Your task to perform on an android device: turn on improve location accuracy Image 0: 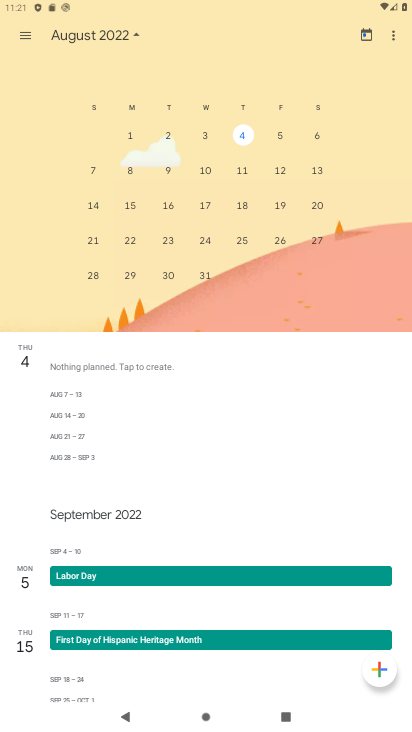
Step 0: drag from (161, 554) to (259, 102)
Your task to perform on an android device: turn on improve location accuracy Image 1: 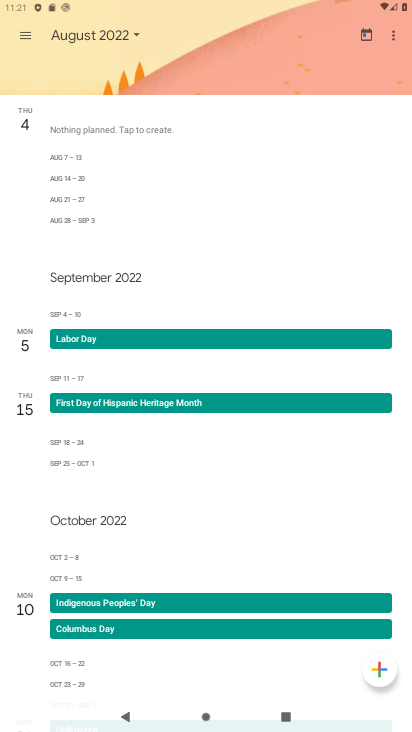
Step 1: press home button
Your task to perform on an android device: turn on improve location accuracy Image 2: 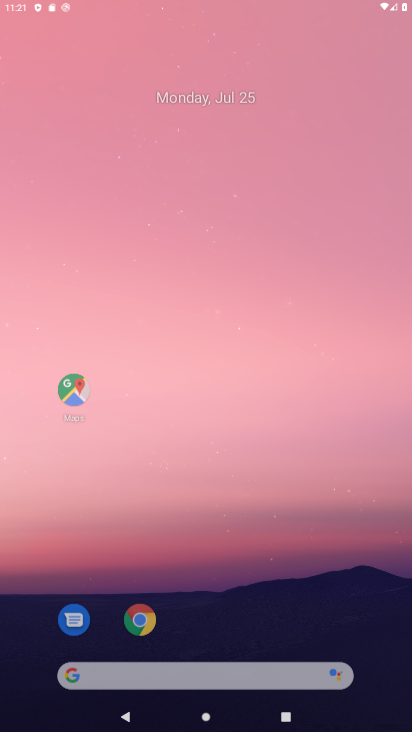
Step 2: drag from (225, 555) to (406, 56)
Your task to perform on an android device: turn on improve location accuracy Image 3: 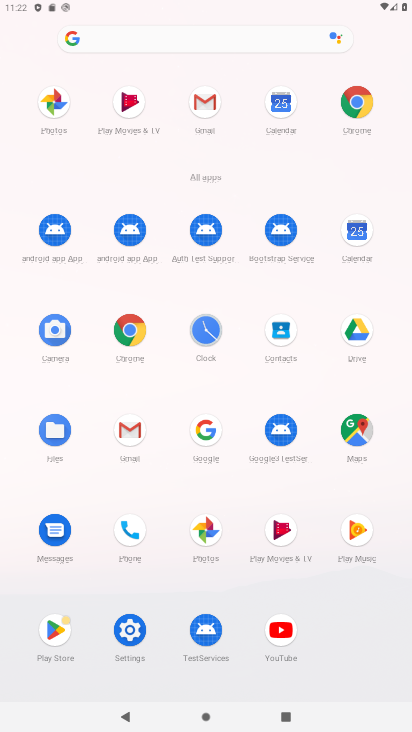
Step 3: click (125, 626)
Your task to perform on an android device: turn on improve location accuracy Image 4: 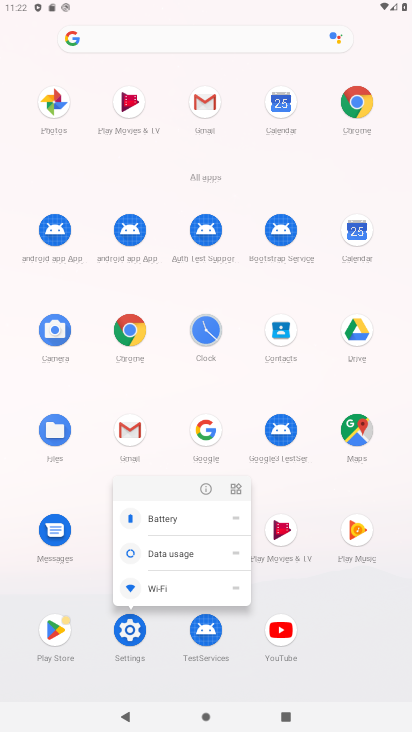
Step 4: click (208, 486)
Your task to perform on an android device: turn on improve location accuracy Image 5: 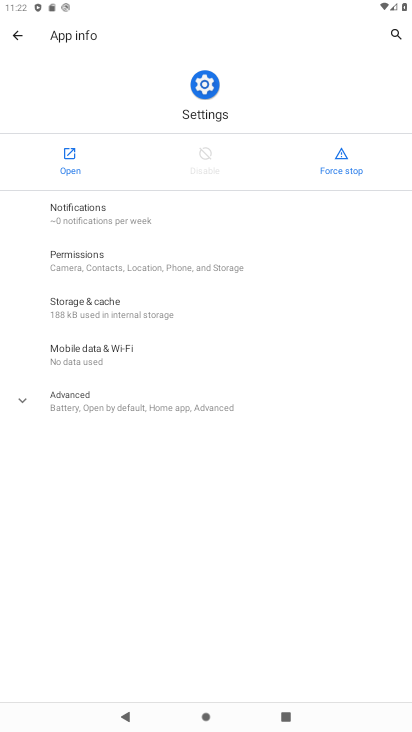
Step 5: click (67, 157)
Your task to perform on an android device: turn on improve location accuracy Image 6: 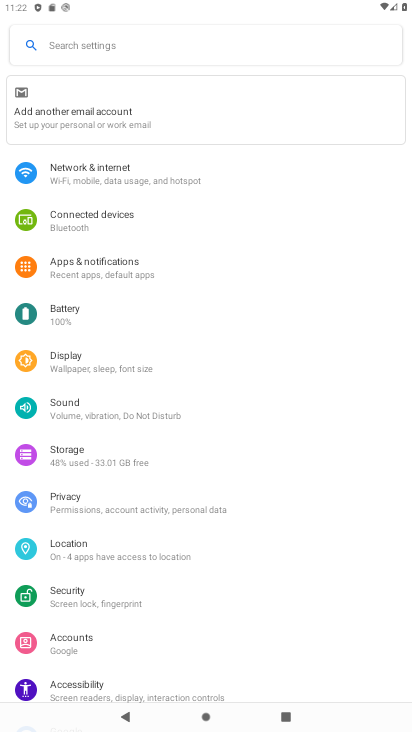
Step 6: click (77, 552)
Your task to perform on an android device: turn on improve location accuracy Image 7: 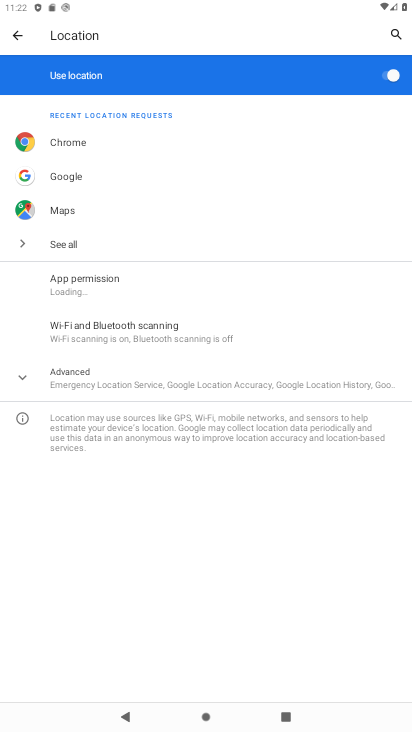
Step 7: click (90, 369)
Your task to perform on an android device: turn on improve location accuracy Image 8: 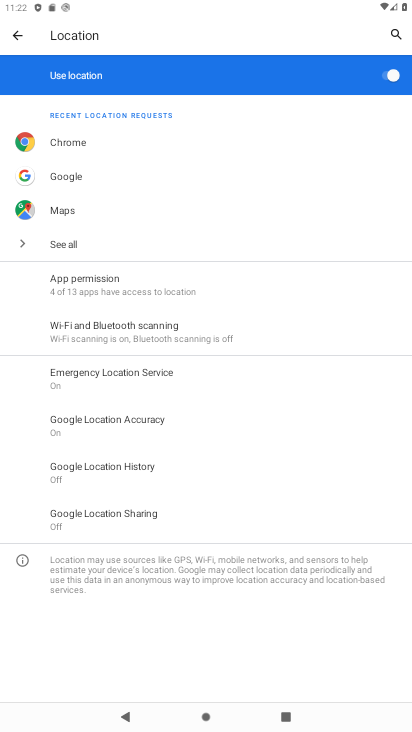
Step 8: click (131, 423)
Your task to perform on an android device: turn on improve location accuracy Image 9: 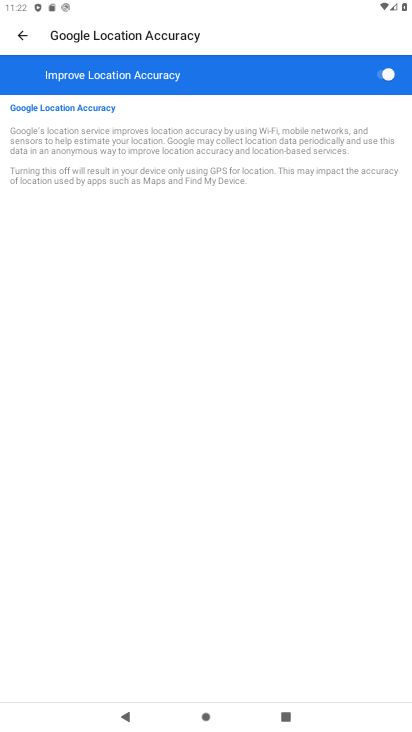
Step 9: task complete